Your task to perform on an android device: Open Google Chrome and click the shortcut for Amazon.com Image 0: 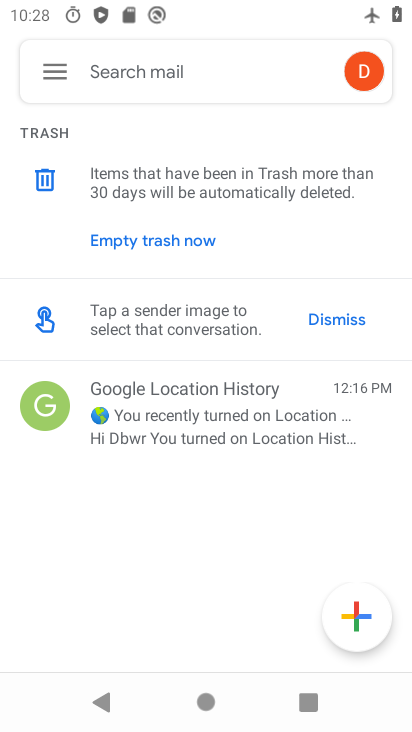
Step 0: press home button
Your task to perform on an android device: Open Google Chrome and click the shortcut for Amazon.com Image 1: 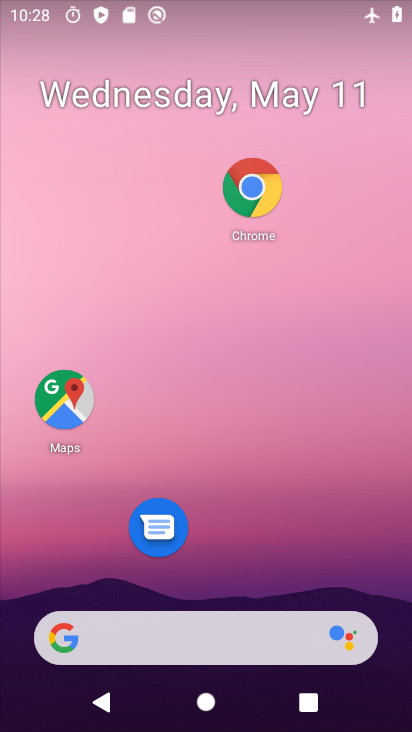
Step 1: click (258, 209)
Your task to perform on an android device: Open Google Chrome and click the shortcut for Amazon.com Image 2: 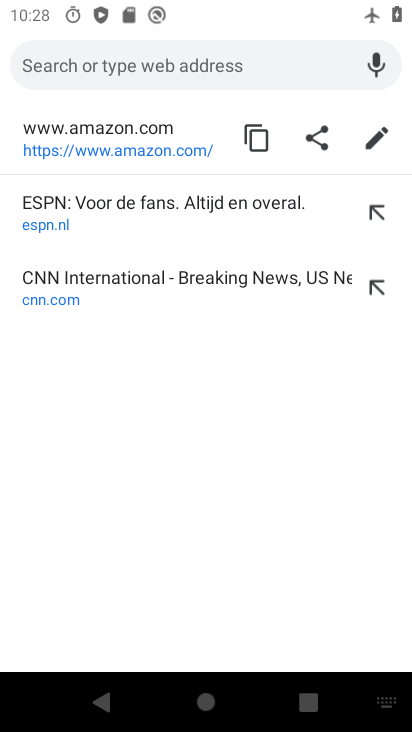
Step 2: click (137, 130)
Your task to perform on an android device: Open Google Chrome and click the shortcut for Amazon.com Image 3: 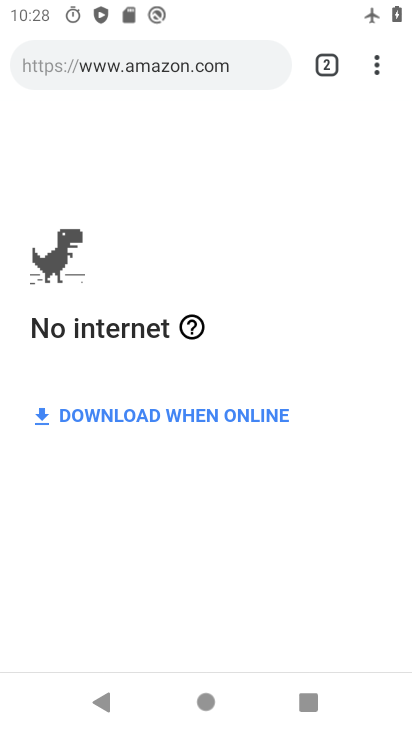
Step 3: task complete